Your task to perform on an android device: check battery use Image 0: 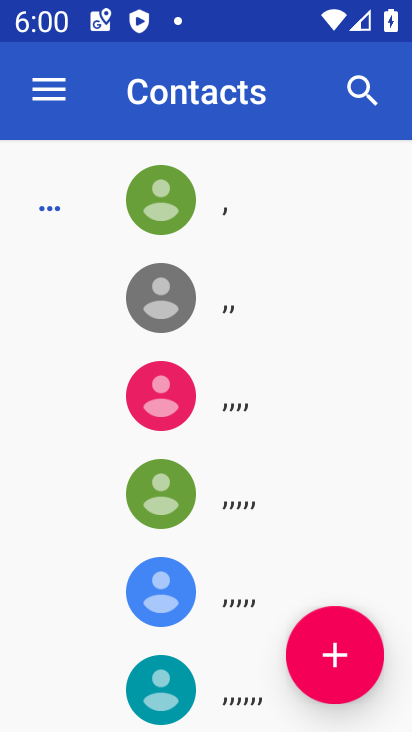
Step 0: press home button
Your task to perform on an android device: check battery use Image 1: 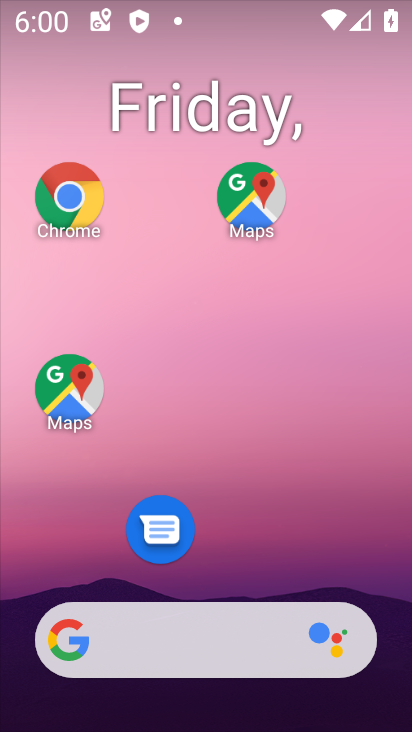
Step 1: drag from (229, 388) to (214, 86)
Your task to perform on an android device: check battery use Image 2: 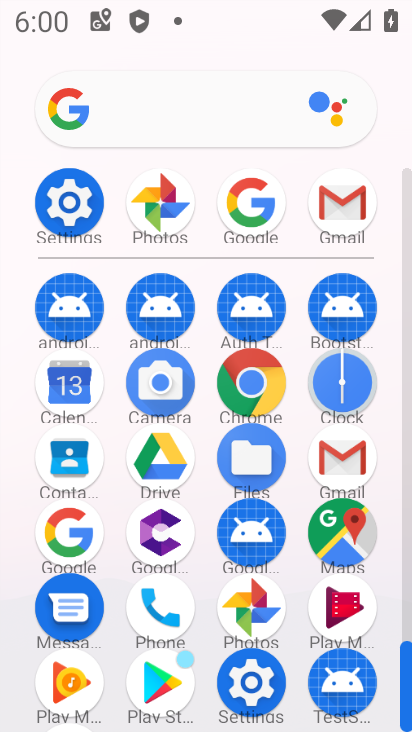
Step 2: click (73, 209)
Your task to perform on an android device: check battery use Image 3: 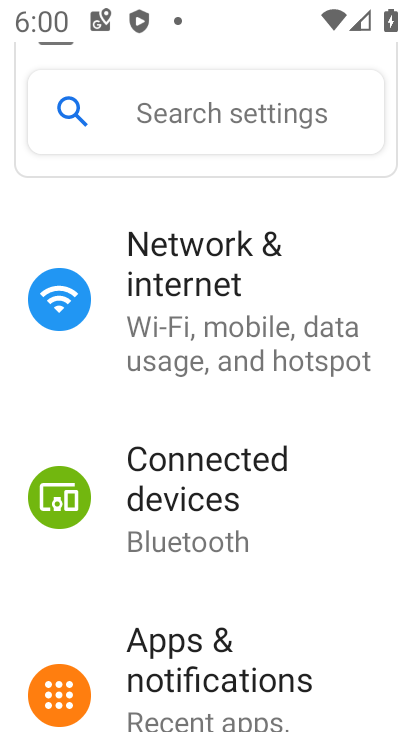
Step 3: drag from (286, 641) to (291, 237)
Your task to perform on an android device: check battery use Image 4: 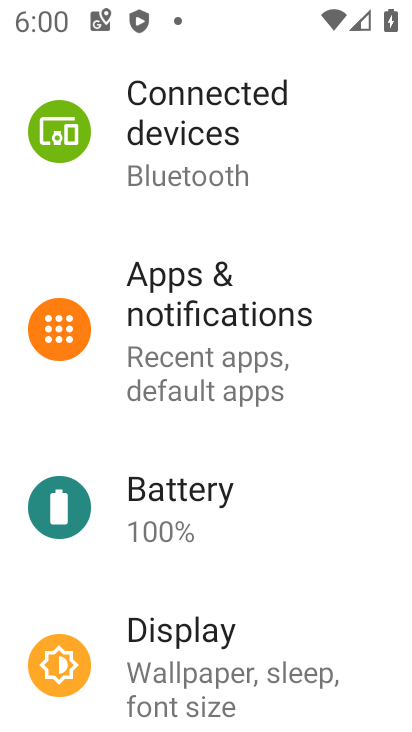
Step 4: click (196, 510)
Your task to perform on an android device: check battery use Image 5: 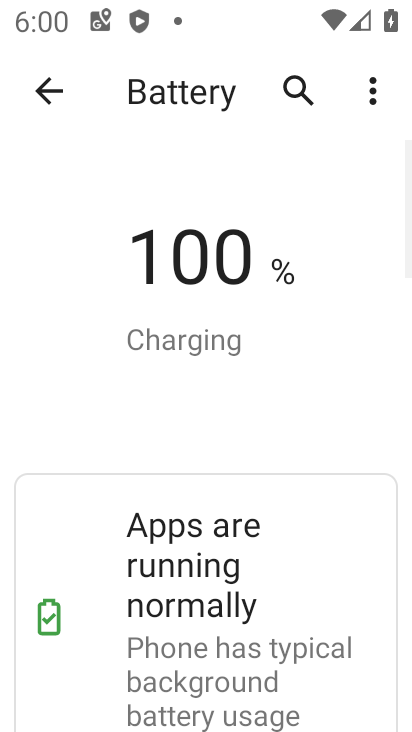
Step 5: task complete